Your task to perform on an android device: open device folders in google photos Image 0: 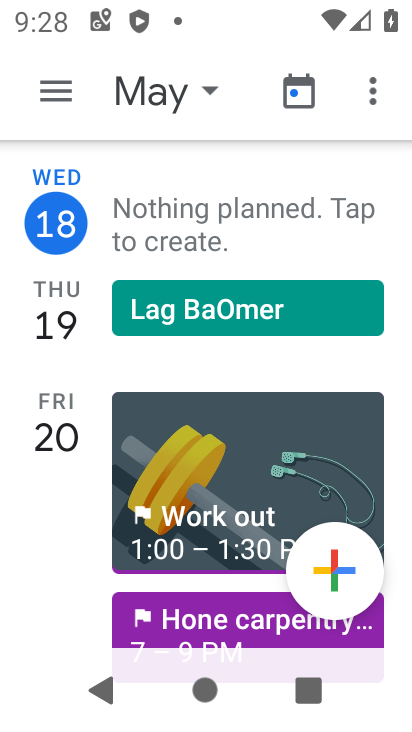
Step 0: press home button
Your task to perform on an android device: open device folders in google photos Image 1: 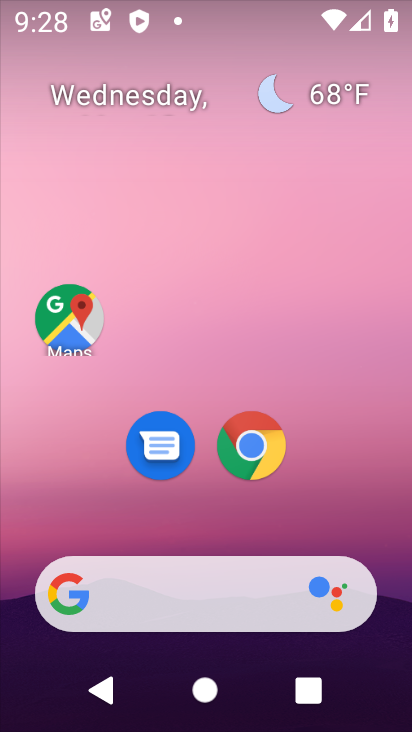
Step 1: drag from (360, 315) to (293, 9)
Your task to perform on an android device: open device folders in google photos Image 2: 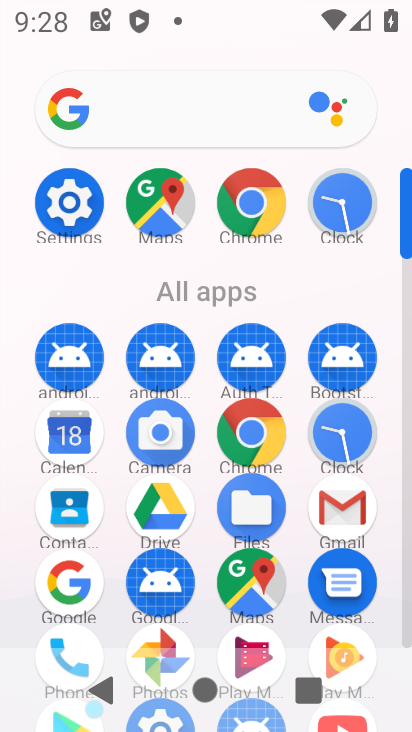
Step 2: drag from (386, 499) to (403, 135)
Your task to perform on an android device: open device folders in google photos Image 3: 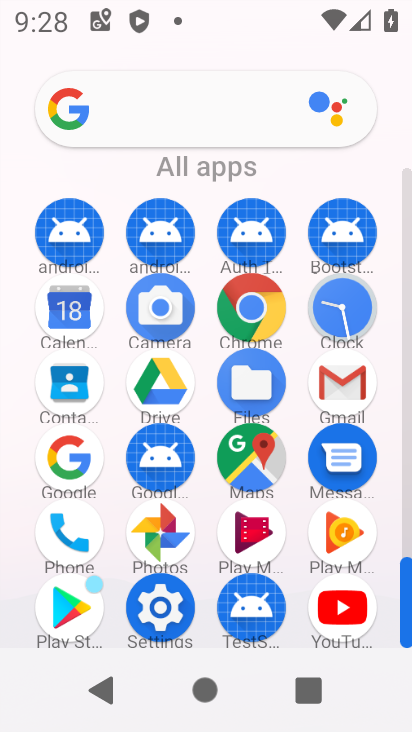
Step 3: click (131, 536)
Your task to perform on an android device: open device folders in google photos Image 4: 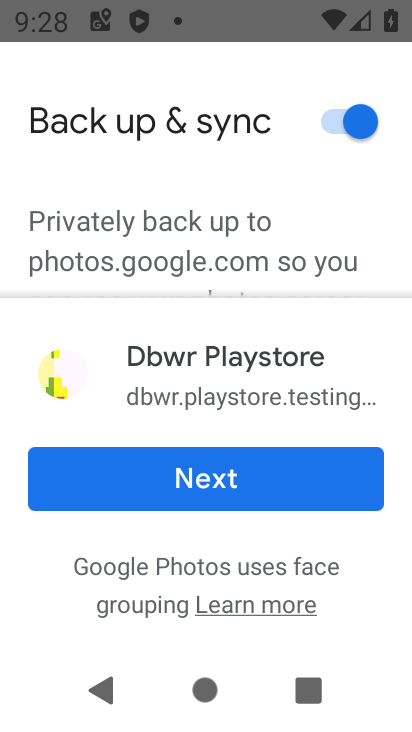
Step 4: click (224, 488)
Your task to perform on an android device: open device folders in google photos Image 5: 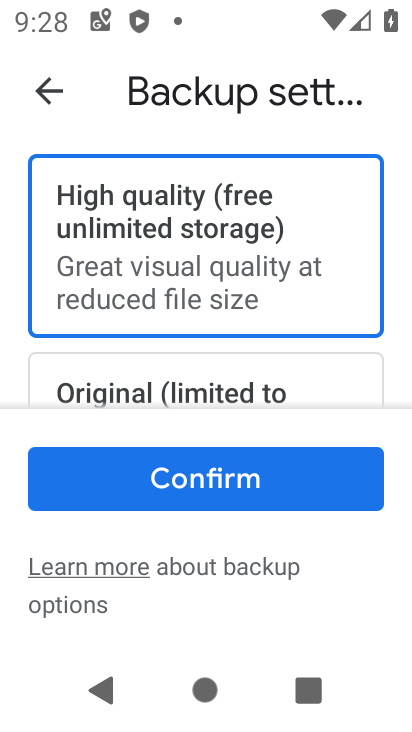
Step 5: click (224, 488)
Your task to perform on an android device: open device folders in google photos Image 6: 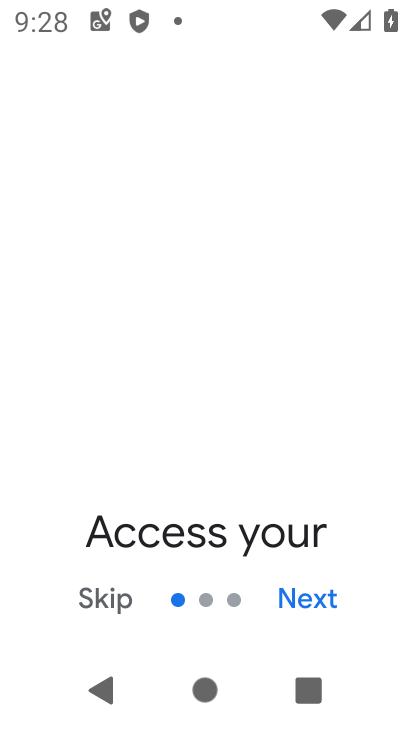
Step 6: click (340, 596)
Your task to perform on an android device: open device folders in google photos Image 7: 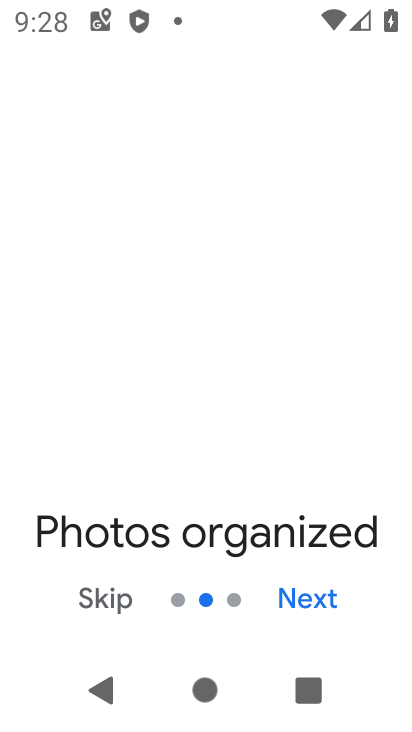
Step 7: click (308, 602)
Your task to perform on an android device: open device folders in google photos Image 8: 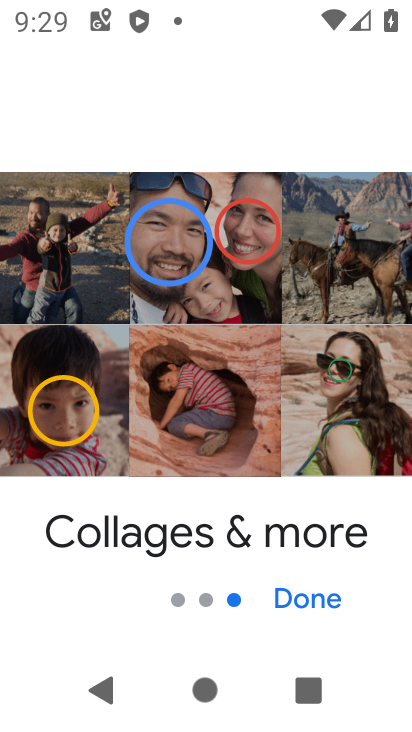
Step 8: click (308, 600)
Your task to perform on an android device: open device folders in google photos Image 9: 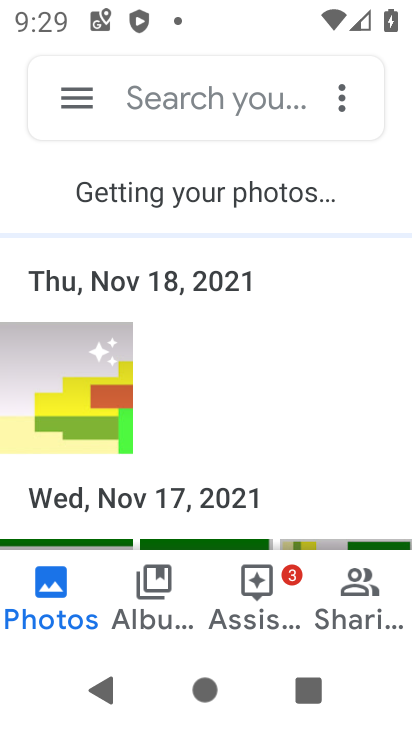
Step 9: click (76, 80)
Your task to perform on an android device: open device folders in google photos Image 10: 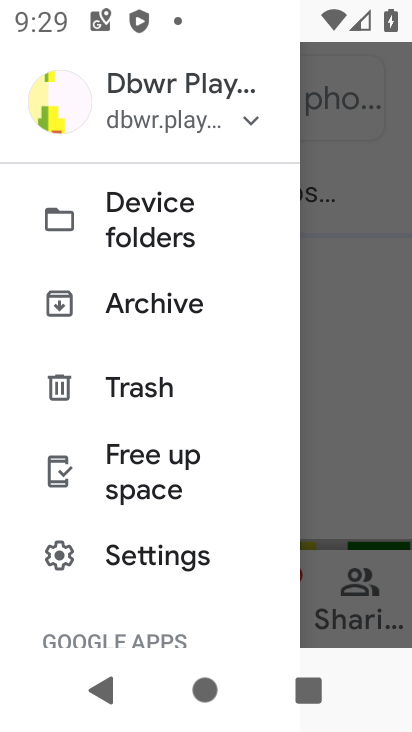
Step 10: click (111, 237)
Your task to perform on an android device: open device folders in google photos Image 11: 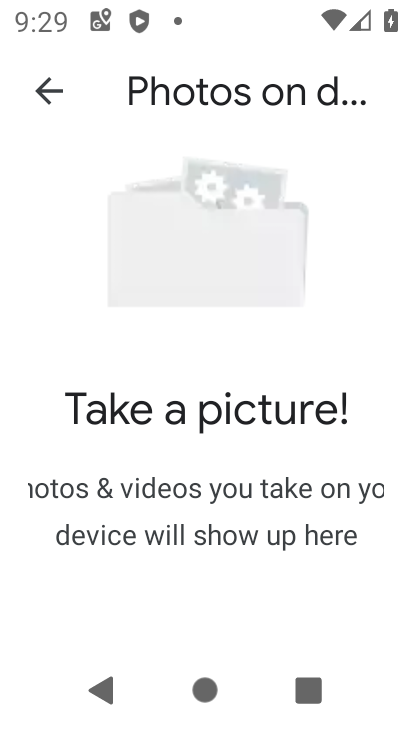
Step 11: task complete